Your task to perform on an android device: Open Yahoo.com Image 0: 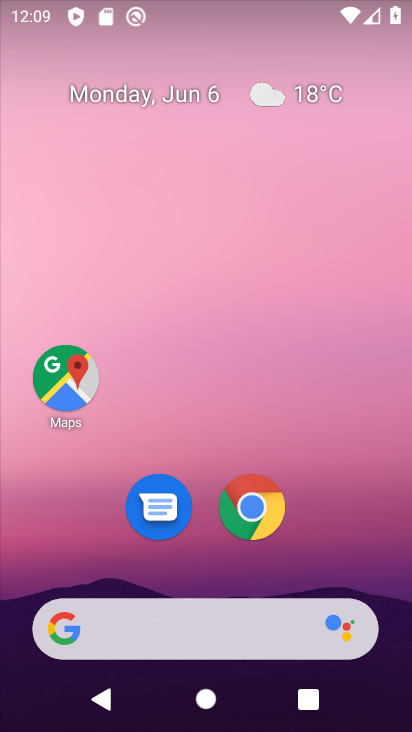
Step 0: click (247, 504)
Your task to perform on an android device: Open Yahoo.com Image 1: 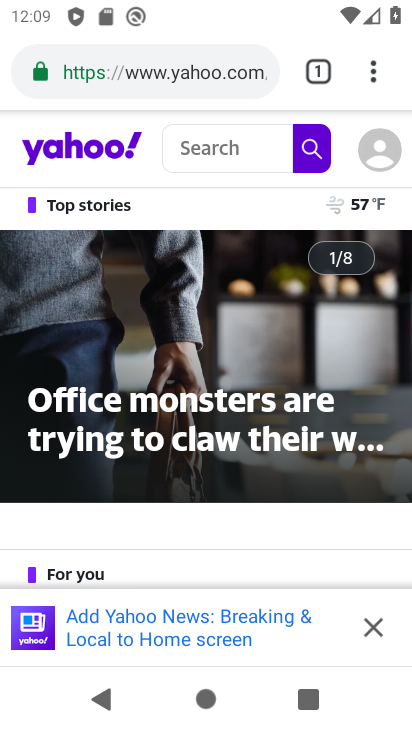
Step 1: click (98, 133)
Your task to perform on an android device: Open Yahoo.com Image 2: 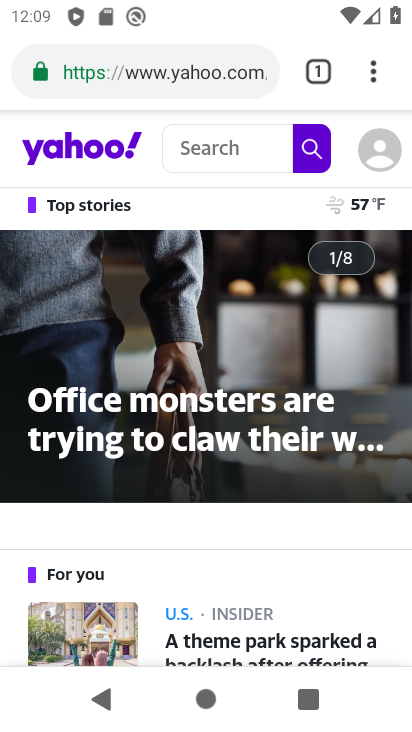
Step 2: task complete